Your task to perform on an android device: stop showing notifications on the lock screen Image 0: 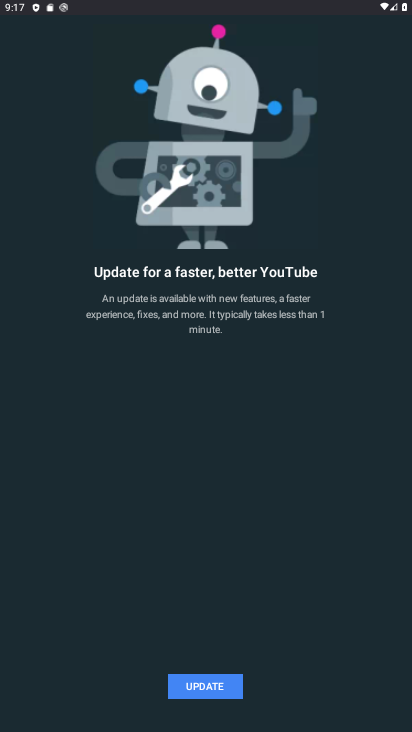
Step 0: press home button
Your task to perform on an android device: stop showing notifications on the lock screen Image 1: 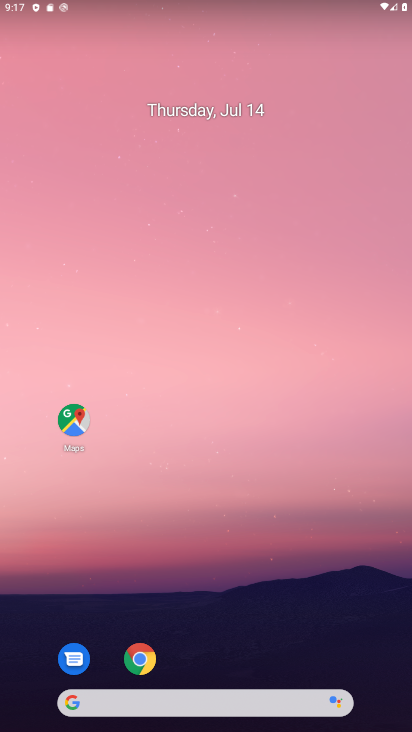
Step 1: drag from (258, 715) to (269, 68)
Your task to perform on an android device: stop showing notifications on the lock screen Image 2: 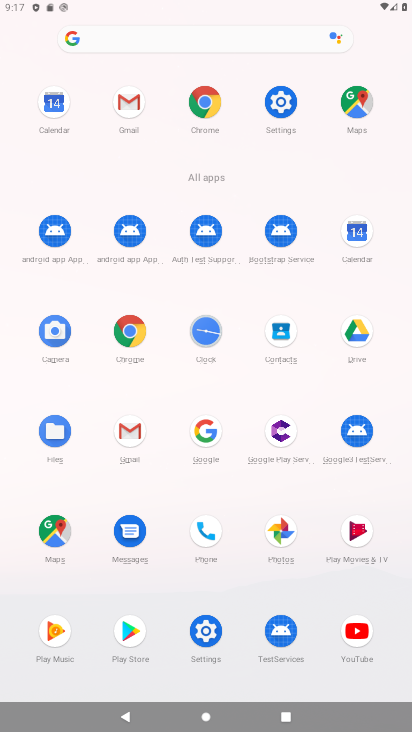
Step 2: click (274, 99)
Your task to perform on an android device: stop showing notifications on the lock screen Image 3: 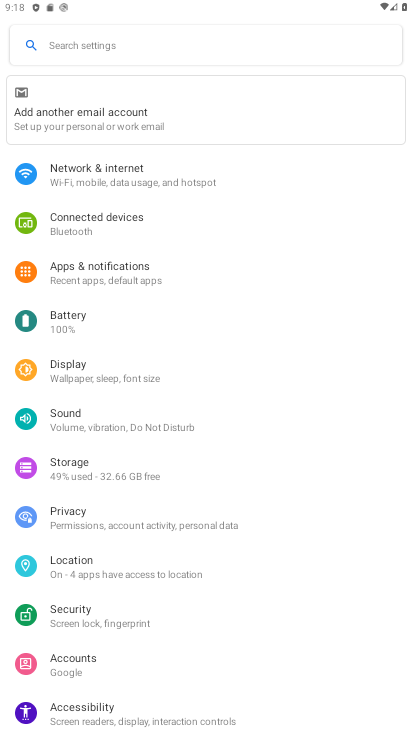
Step 3: click (100, 280)
Your task to perform on an android device: stop showing notifications on the lock screen Image 4: 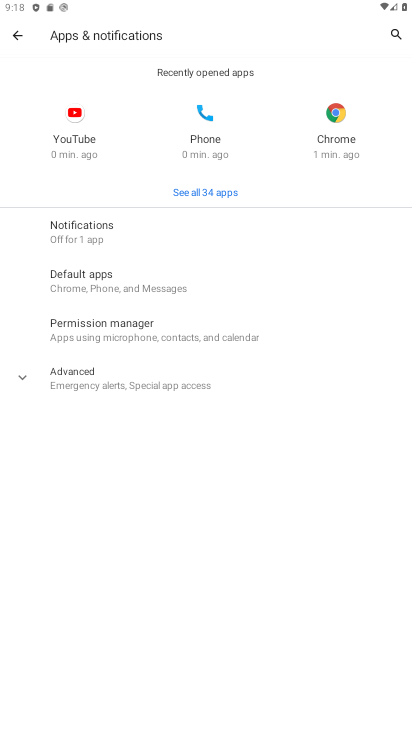
Step 4: click (98, 223)
Your task to perform on an android device: stop showing notifications on the lock screen Image 5: 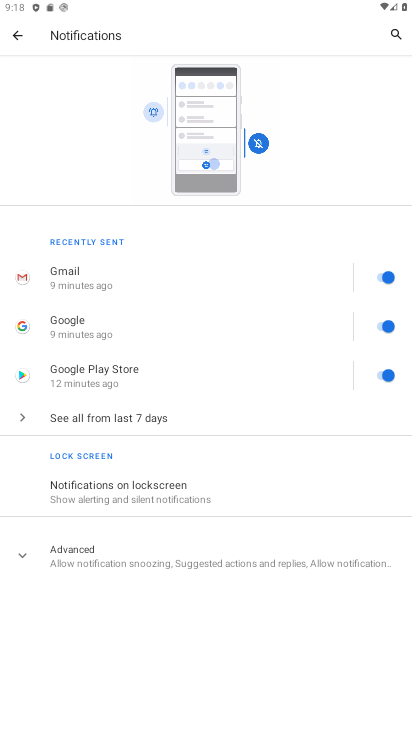
Step 5: click (122, 492)
Your task to perform on an android device: stop showing notifications on the lock screen Image 6: 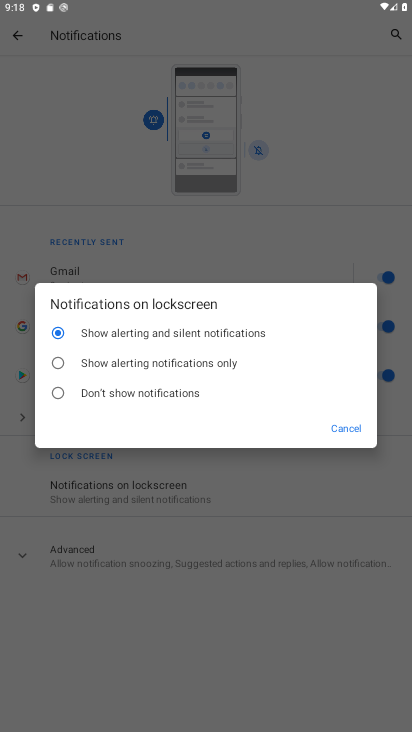
Step 6: click (49, 390)
Your task to perform on an android device: stop showing notifications on the lock screen Image 7: 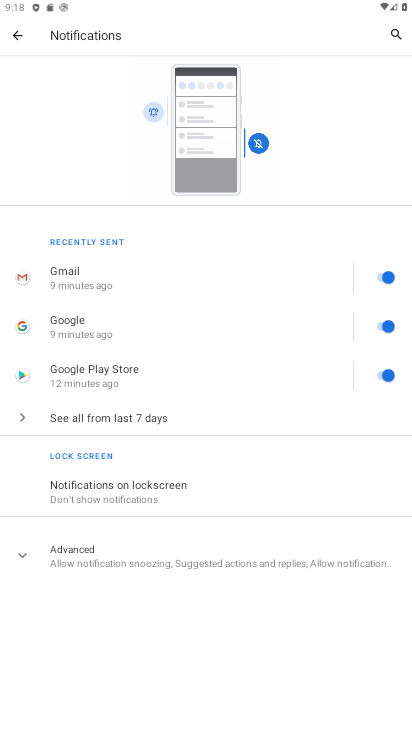
Step 7: task complete